Your task to perform on an android device: delete a single message in the gmail app Image 0: 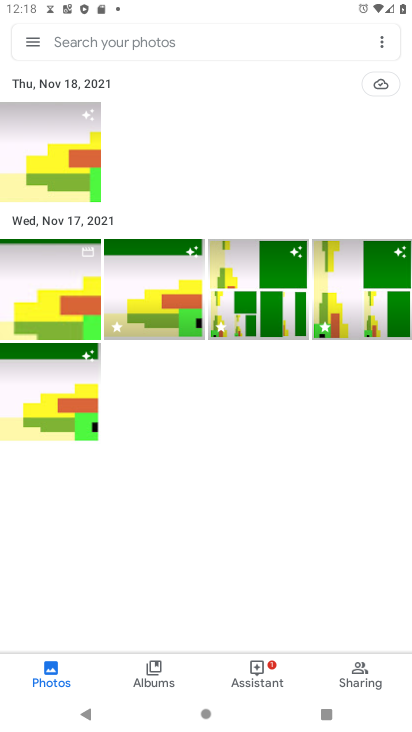
Step 0: press home button
Your task to perform on an android device: delete a single message in the gmail app Image 1: 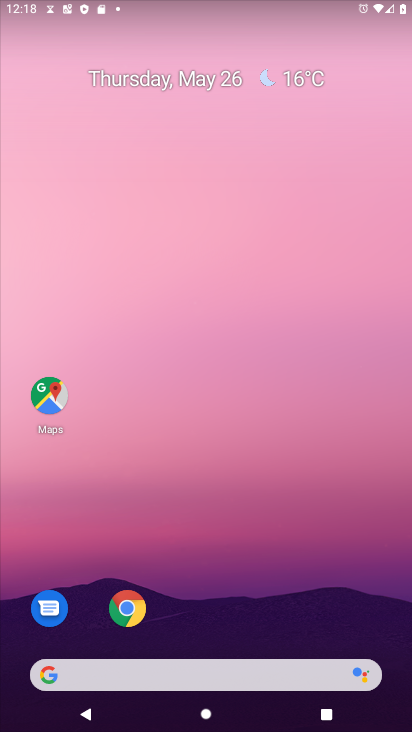
Step 1: drag from (225, 718) to (216, 125)
Your task to perform on an android device: delete a single message in the gmail app Image 2: 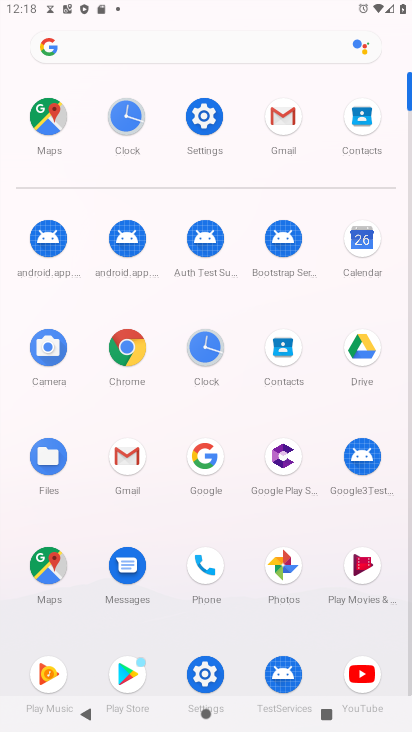
Step 2: click (127, 453)
Your task to perform on an android device: delete a single message in the gmail app Image 3: 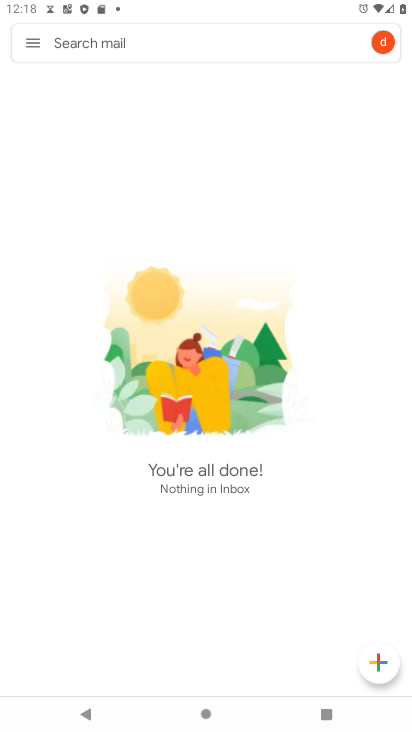
Step 3: task complete